Your task to perform on an android device: empty trash in google photos Image 0: 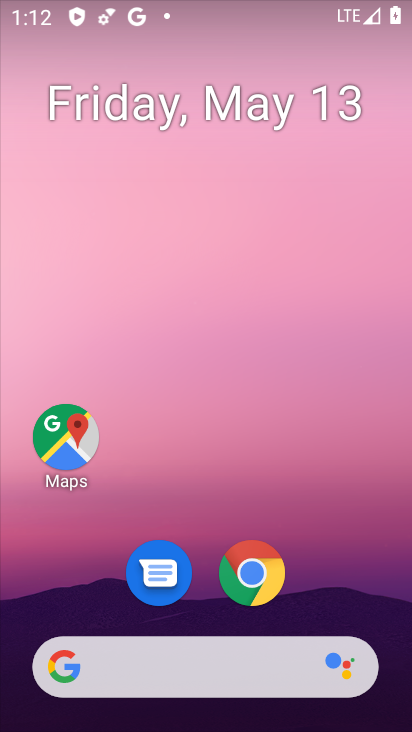
Step 0: press home button
Your task to perform on an android device: empty trash in google photos Image 1: 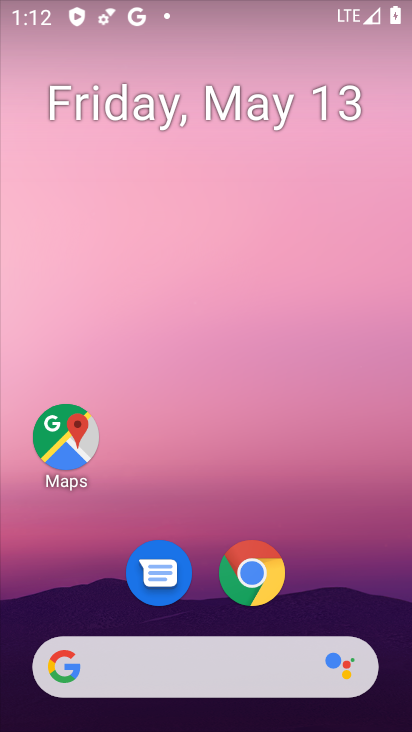
Step 1: drag from (222, 642) to (207, 248)
Your task to perform on an android device: empty trash in google photos Image 2: 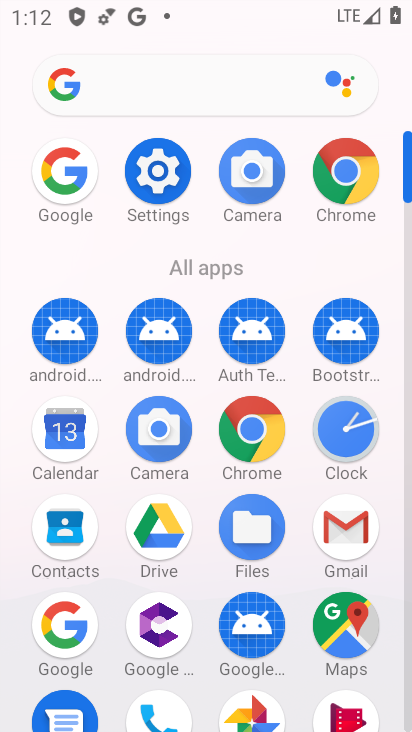
Step 2: click (332, 540)
Your task to perform on an android device: empty trash in google photos Image 3: 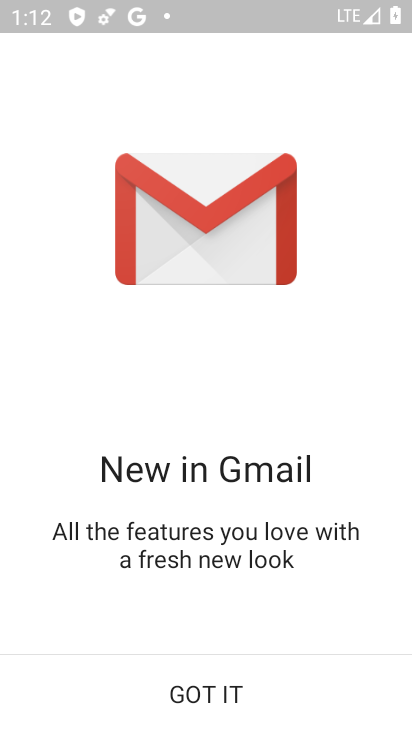
Step 3: click (191, 692)
Your task to perform on an android device: empty trash in google photos Image 4: 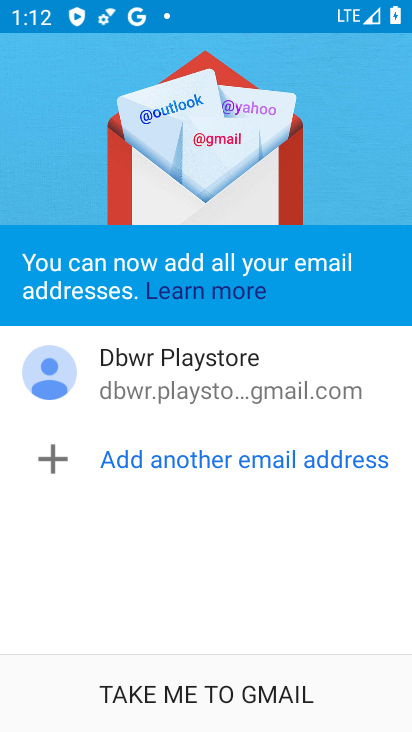
Step 4: click (191, 692)
Your task to perform on an android device: empty trash in google photos Image 5: 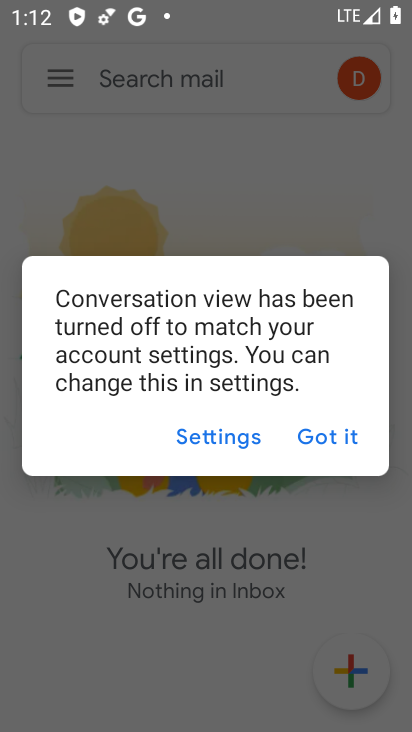
Step 5: click (325, 445)
Your task to perform on an android device: empty trash in google photos Image 6: 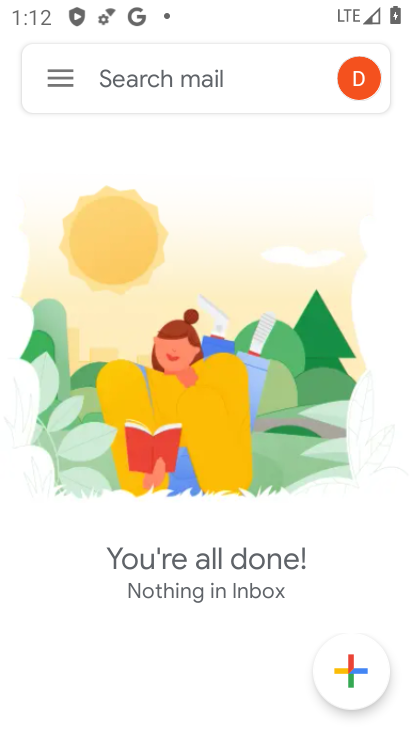
Step 6: click (65, 81)
Your task to perform on an android device: empty trash in google photos Image 7: 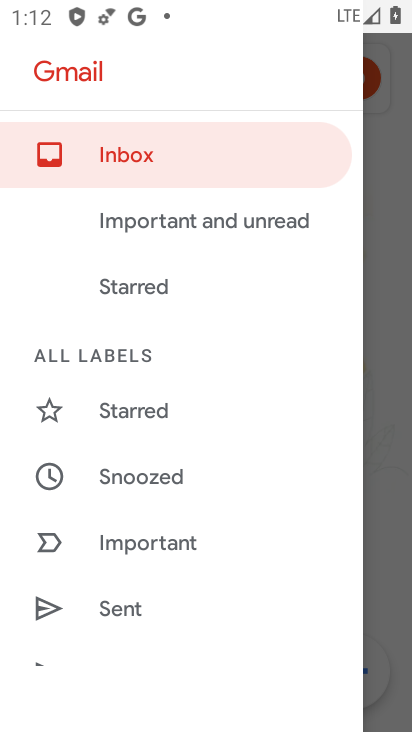
Step 7: press home button
Your task to perform on an android device: empty trash in google photos Image 8: 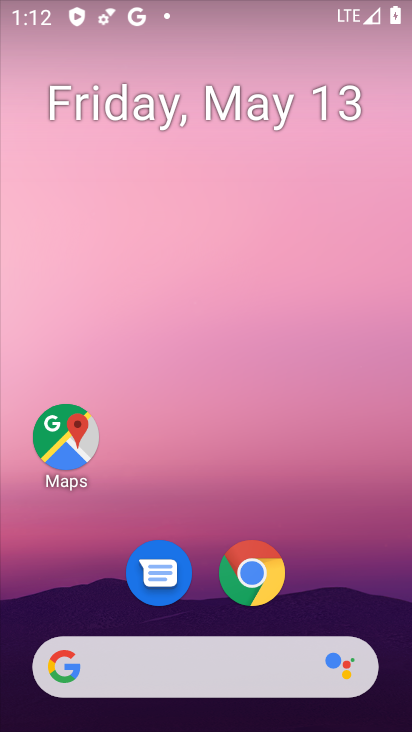
Step 8: drag from (336, 631) to (324, 312)
Your task to perform on an android device: empty trash in google photos Image 9: 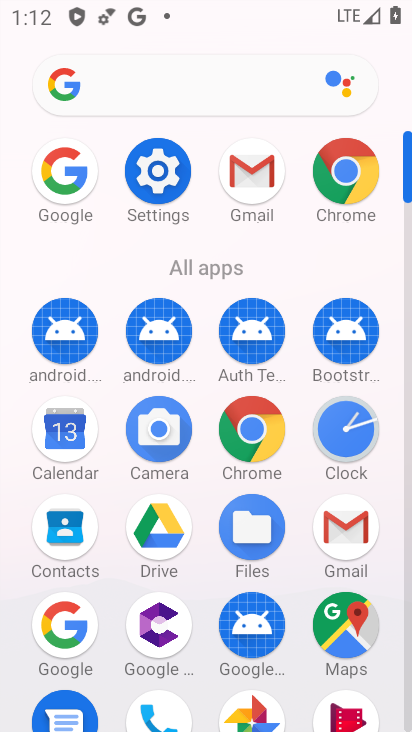
Step 9: drag from (211, 683) to (202, 291)
Your task to perform on an android device: empty trash in google photos Image 10: 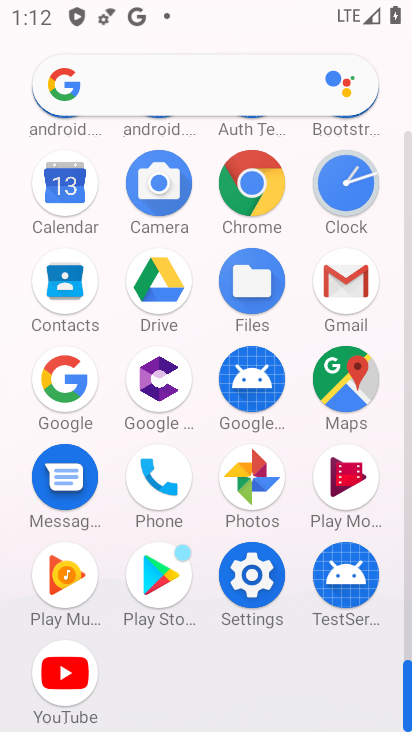
Step 10: click (264, 479)
Your task to perform on an android device: empty trash in google photos Image 11: 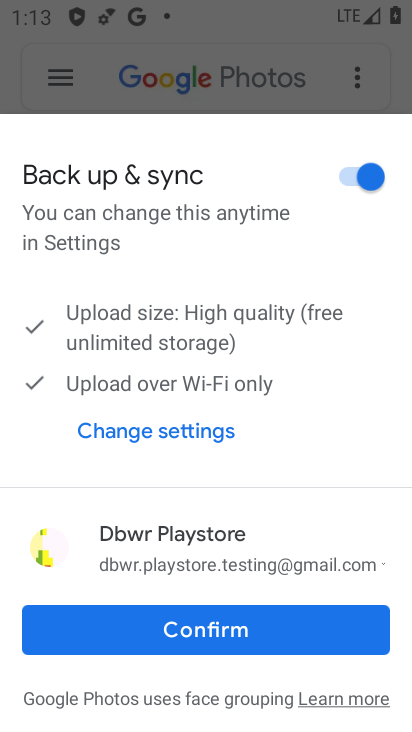
Step 11: click (236, 633)
Your task to perform on an android device: empty trash in google photos Image 12: 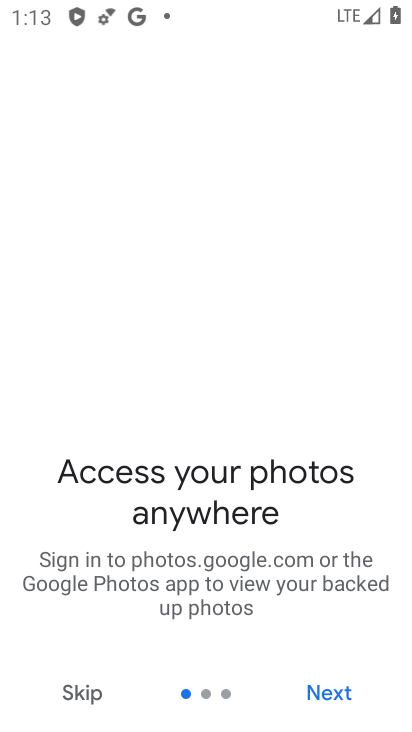
Step 12: click (325, 689)
Your task to perform on an android device: empty trash in google photos Image 13: 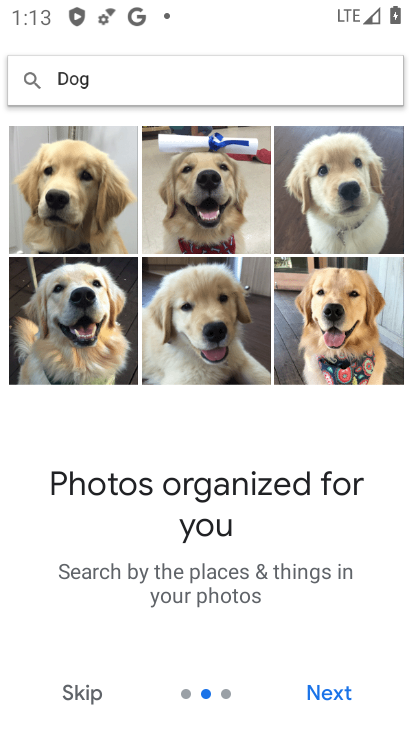
Step 13: click (324, 689)
Your task to perform on an android device: empty trash in google photos Image 14: 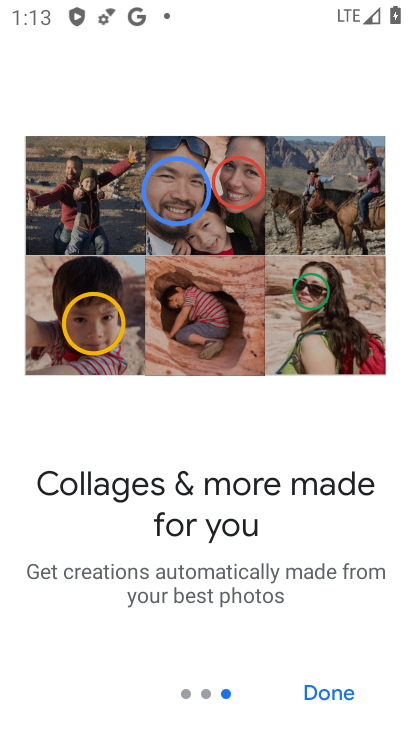
Step 14: click (324, 689)
Your task to perform on an android device: empty trash in google photos Image 15: 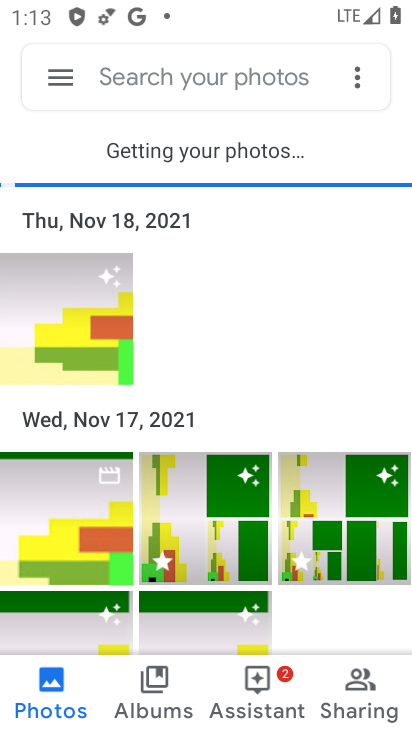
Step 15: click (66, 73)
Your task to perform on an android device: empty trash in google photos Image 16: 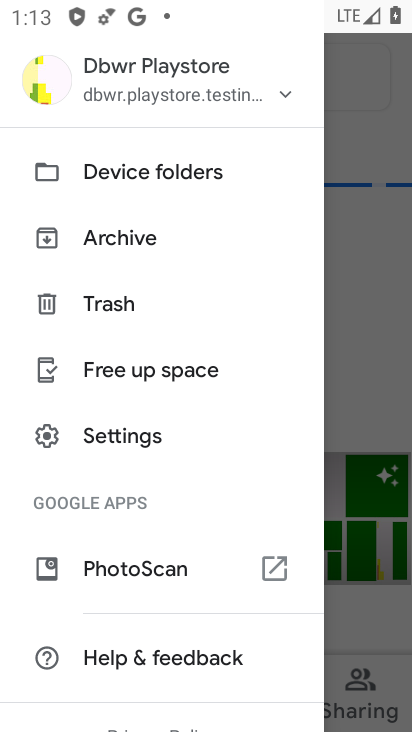
Step 16: click (113, 298)
Your task to perform on an android device: empty trash in google photos Image 17: 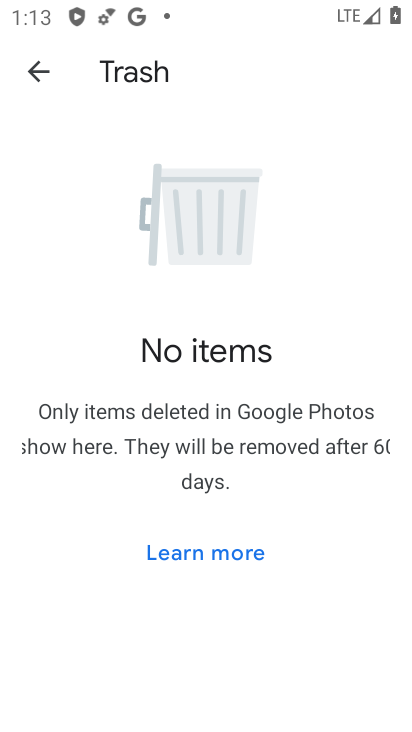
Step 17: task complete